Your task to perform on an android device: move an email to a new category in the gmail app Image 0: 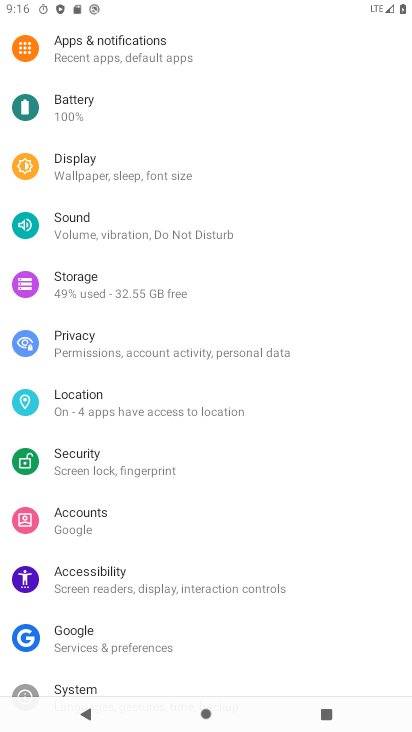
Step 0: press home button
Your task to perform on an android device: move an email to a new category in the gmail app Image 1: 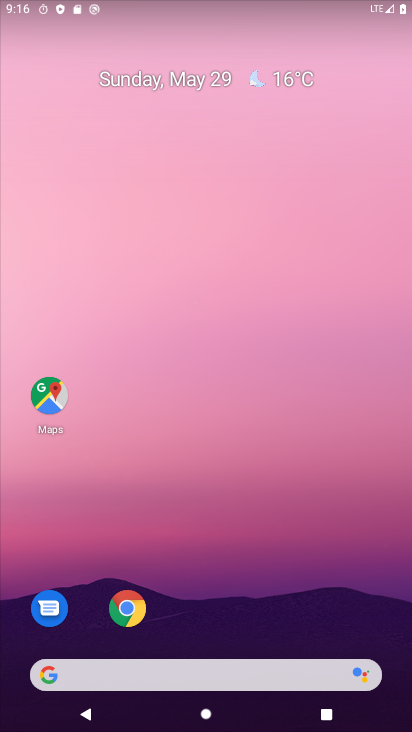
Step 1: drag from (207, 620) to (216, 47)
Your task to perform on an android device: move an email to a new category in the gmail app Image 2: 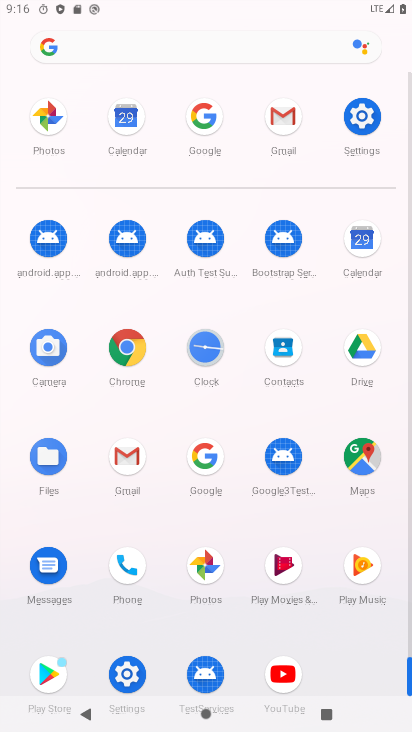
Step 2: click (272, 113)
Your task to perform on an android device: move an email to a new category in the gmail app Image 3: 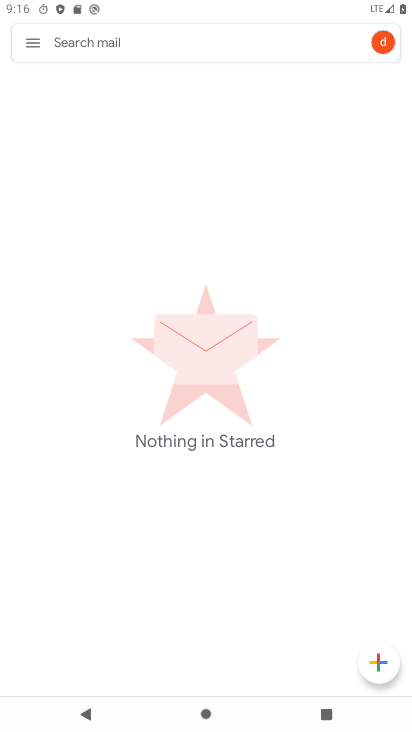
Step 3: click (31, 47)
Your task to perform on an android device: move an email to a new category in the gmail app Image 4: 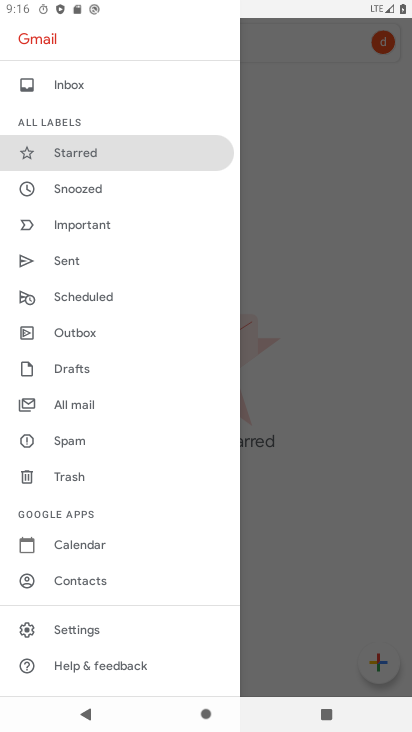
Step 4: drag from (92, 125) to (78, 564)
Your task to perform on an android device: move an email to a new category in the gmail app Image 5: 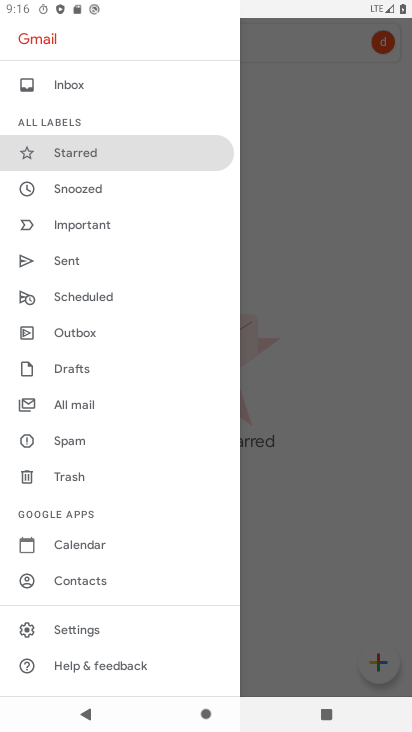
Step 5: click (73, 403)
Your task to perform on an android device: move an email to a new category in the gmail app Image 6: 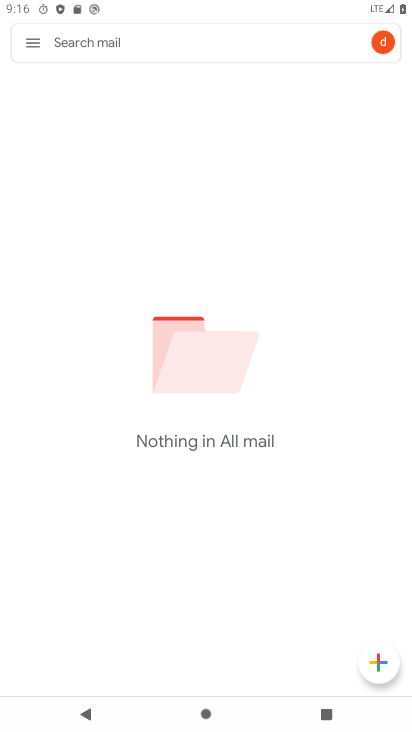
Step 6: task complete